Your task to perform on an android device: turn on priority inbox in the gmail app Image 0: 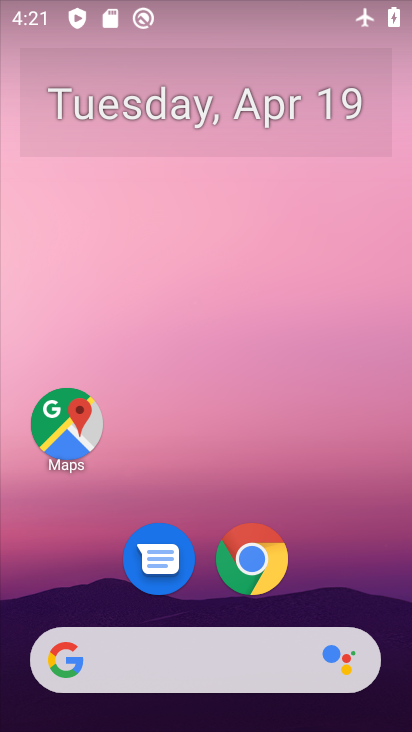
Step 0: drag from (321, 572) to (196, 7)
Your task to perform on an android device: turn on priority inbox in the gmail app Image 1: 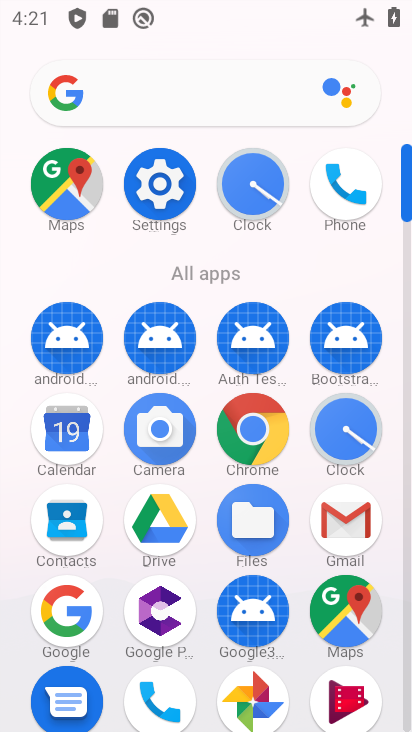
Step 1: click (350, 528)
Your task to perform on an android device: turn on priority inbox in the gmail app Image 2: 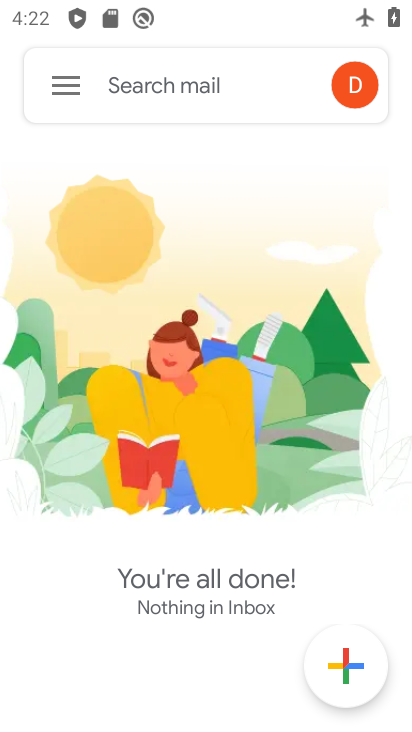
Step 2: click (43, 87)
Your task to perform on an android device: turn on priority inbox in the gmail app Image 3: 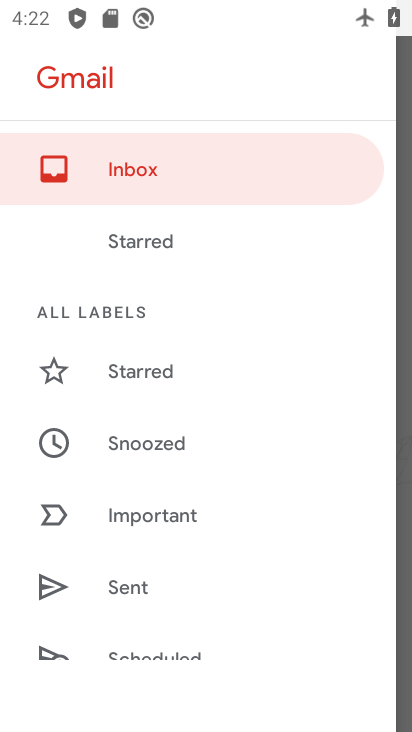
Step 3: drag from (125, 565) to (129, 114)
Your task to perform on an android device: turn on priority inbox in the gmail app Image 4: 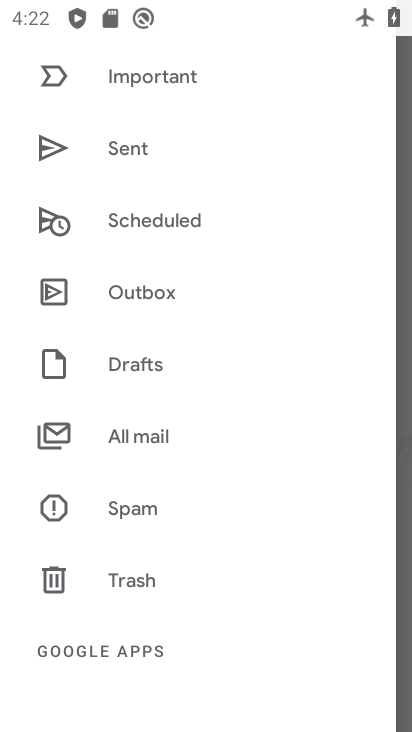
Step 4: drag from (146, 591) to (156, 227)
Your task to perform on an android device: turn on priority inbox in the gmail app Image 5: 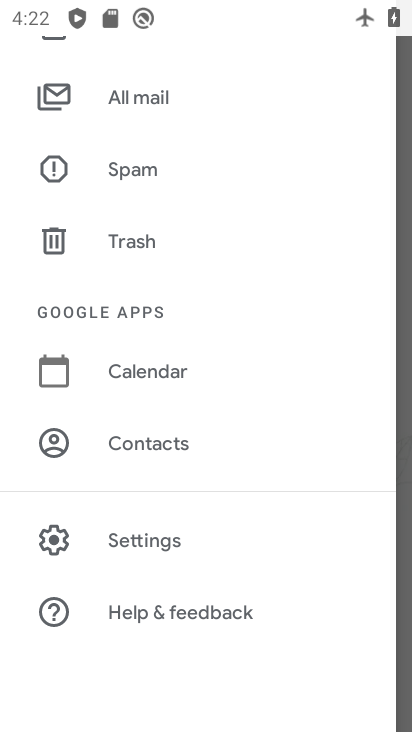
Step 5: click (147, 539)
Your task to perform on an android device: turn on priority inbox in the gmail app Image 6: 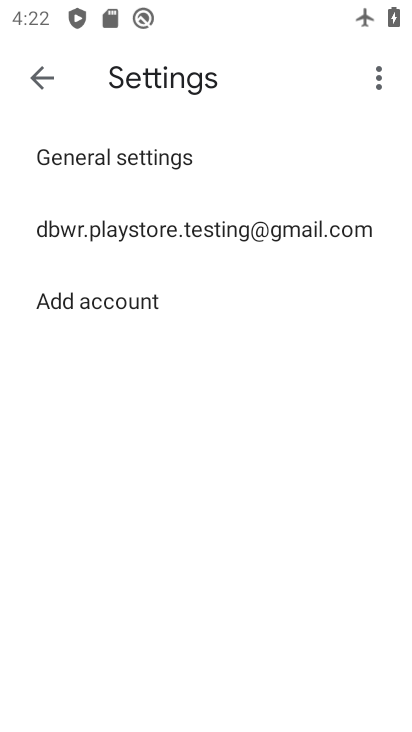
Step 6: click (181, 136)
Your task to perform on an android device: turn on priority inbox in the gmail app Image 7: 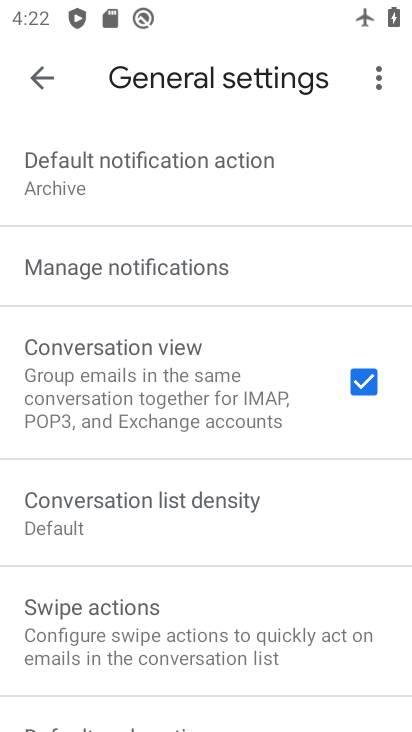
Step 7: click (29, 69)
Your task to perform on an android device: turn on priority inbox in the gmail app Image 8: 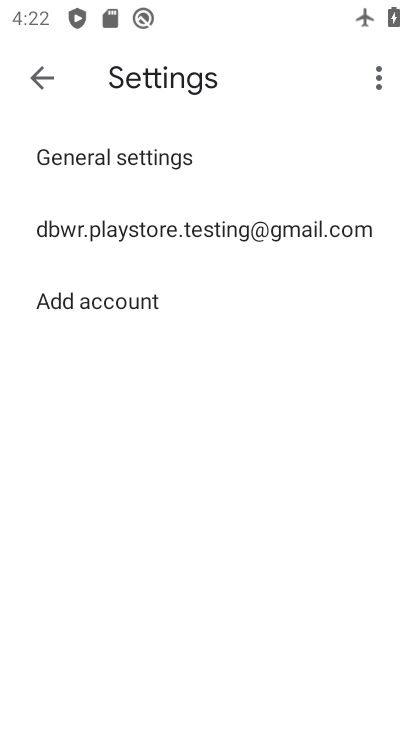
Step 8: click (75, 215)
Your task to perform on an android device: turn on priority inbox in the gmail app Image 9: 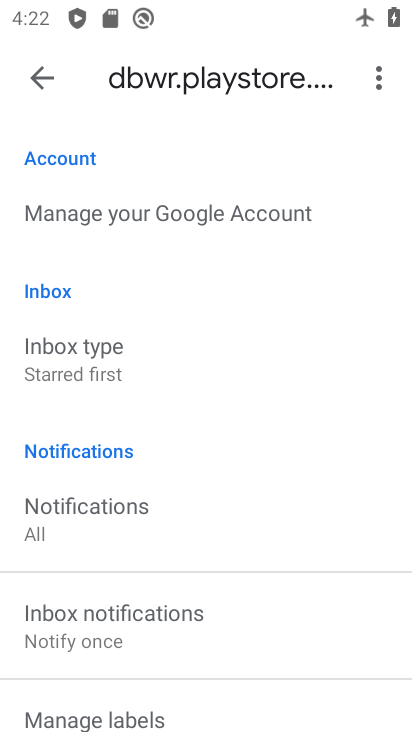
Step 9: drag from (153, 503) to (108, 285)
Your task to perform on an android device: turn on priority inbox in the gmail app Image 10: 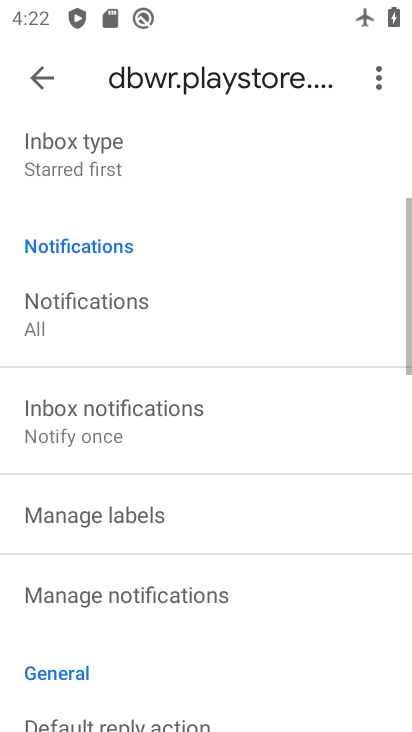
Step 10: click (108, 285)
Your task to perform on an android device: turn on priority inbox in the gmail app Image 11: 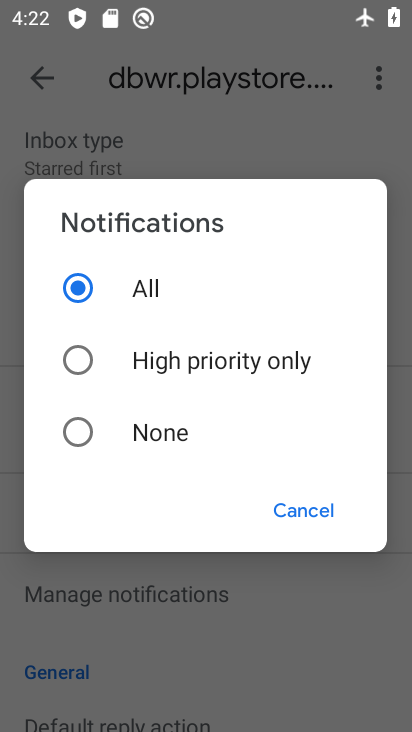
Step 11: click (150, 367)
Your task to perform on an android device: turn on priority inbox in the gmail app Image 12: 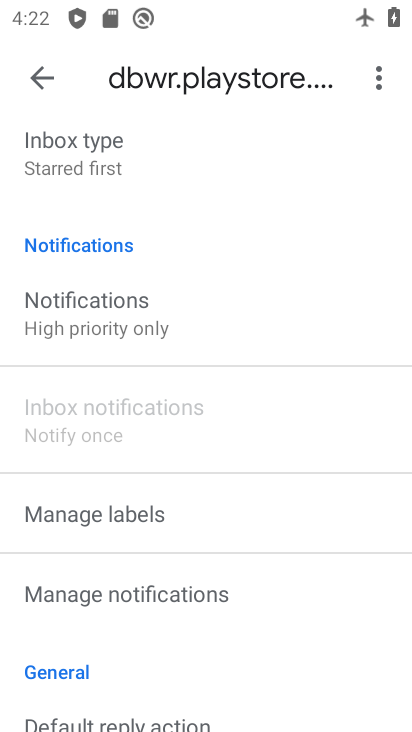
Step 12: task complete